Your task to perform on an android device: delete the emails in spam in the gmail app Image 0: 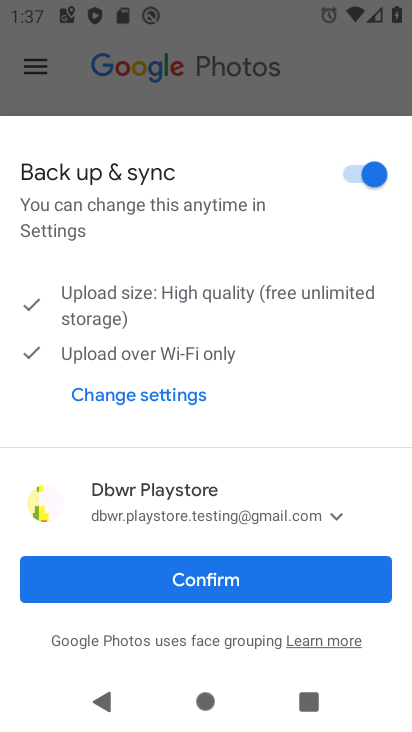
Step 0: press home button
Your task to perform on an android device: delete the emails in spam in the gmail app Image 1: 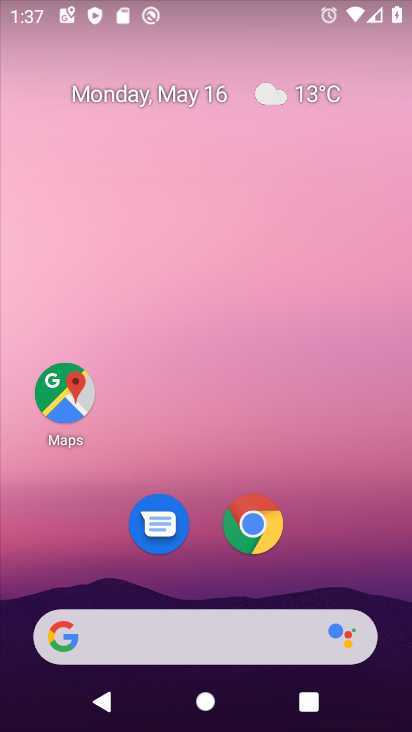
Step 1: drag from (226, 446) to (182, 39)
Your task to perform on an android device: delete the emails in spam in the gmail app Image 2: 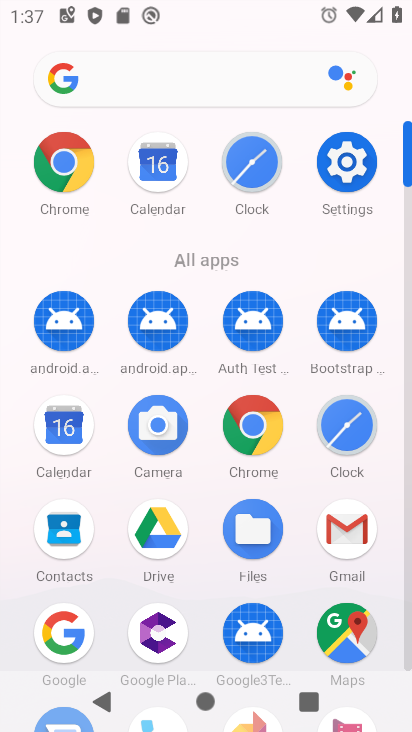
Step 2: click (342, 538)
Your task to perform on an android device: delete the emails in spam in the gmail app Image 3: 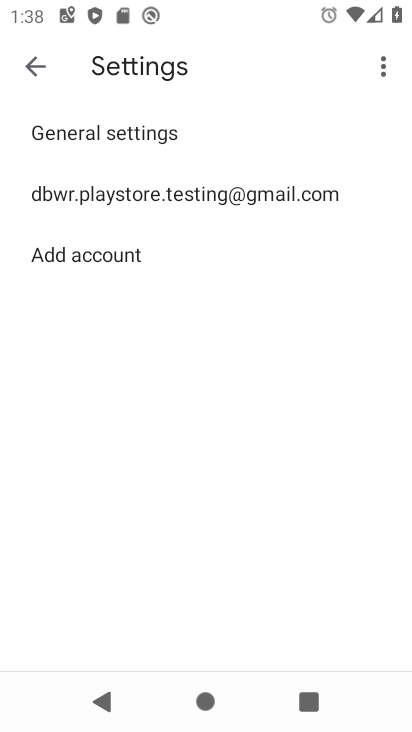
Step 3: click (33, 57)
Your task to perform on an android device: delete the emails in spam in the gmail app Image 4: 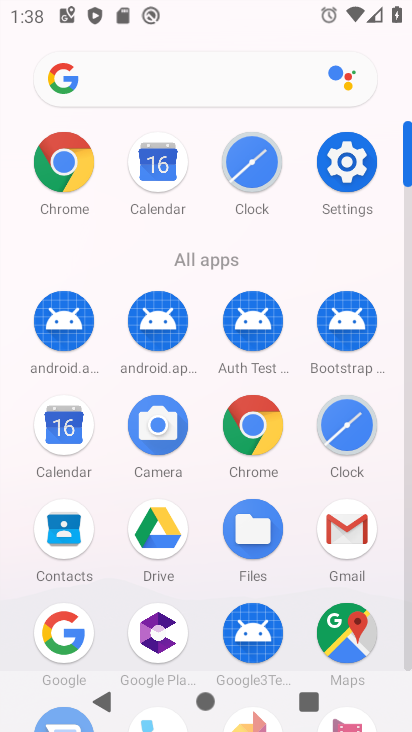
Step 4: click (349, 535)
Your task to perform on an android device: delete the emails in spam in the gmail app Image 5: 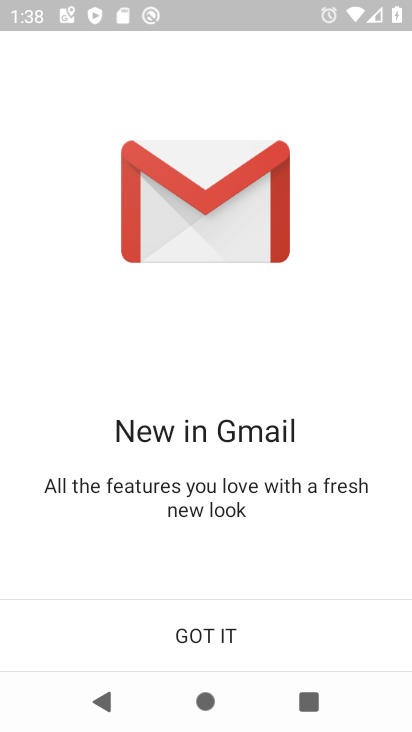
Step 5: click (226, 625)
Your task to perform on an android device: delete the emails in spam in the gmail app Image 6: 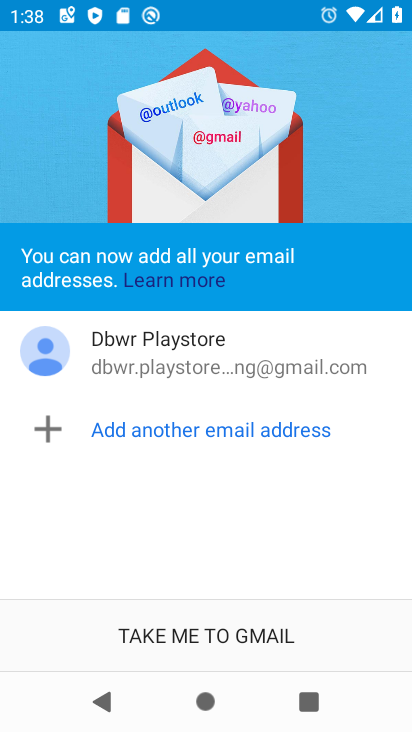
Step 6: click (226, 624)
Your task to perform on an android device: delete the emails in spam in the gmail app Image 7: 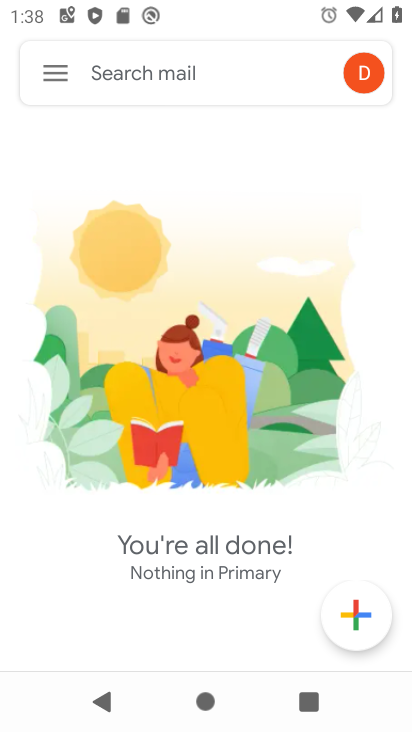
Step 7: click (52, 64)
Your task to perform on an android device: delete the emails in spam in the gmail app Image 8: 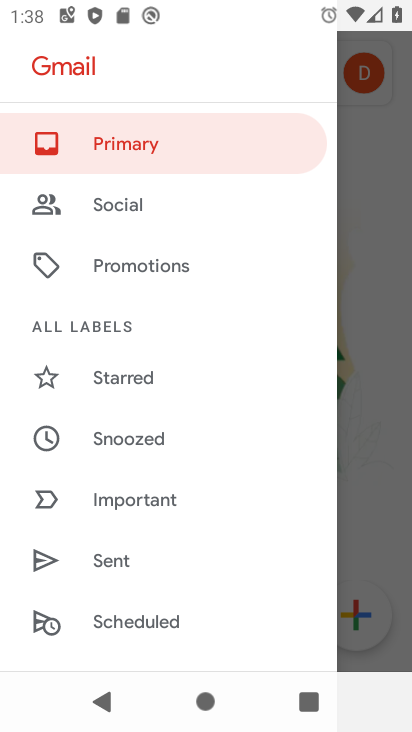
Step 8: drag from (173, 548) to (168, 117)
Your task to perform on an android device: delete the emails in spam in the gmail app Image 9: 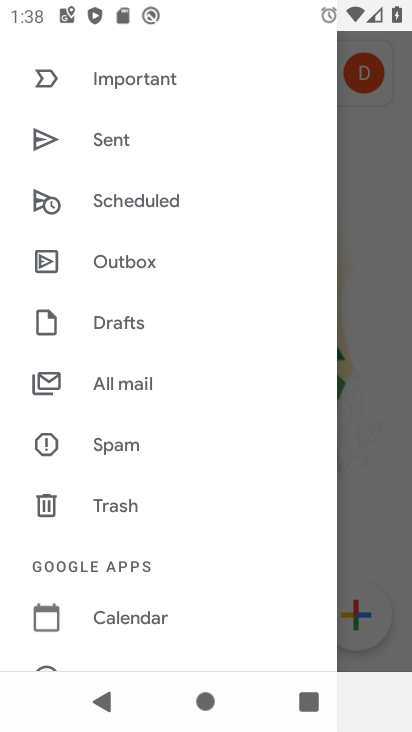
Step 9: click (139, 431)
Your task to perform on an android device: delete the emails in spam in the gmail app Image 10: 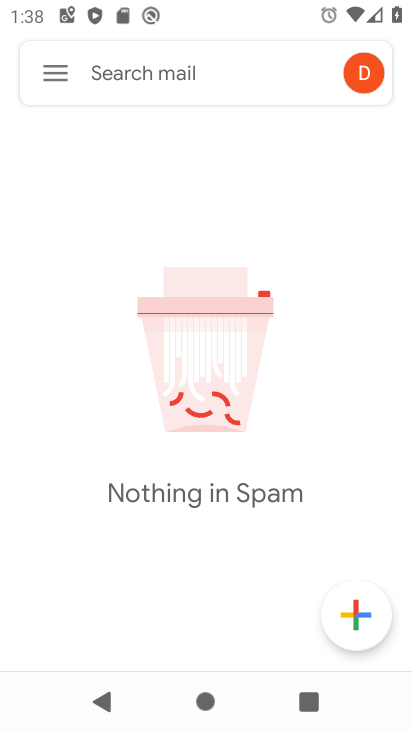
Step 10: task complete